Your task to perform on an android device: Open accessibility settings Image 0: 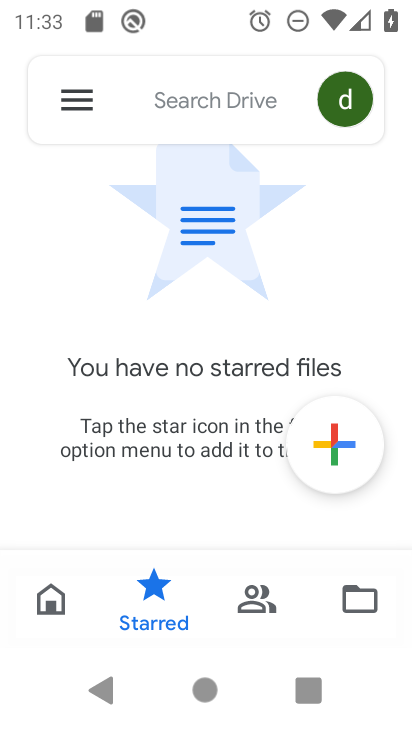
Step 0: press home button
Your task to perform on an android device: Open accessibility settings Image 1: 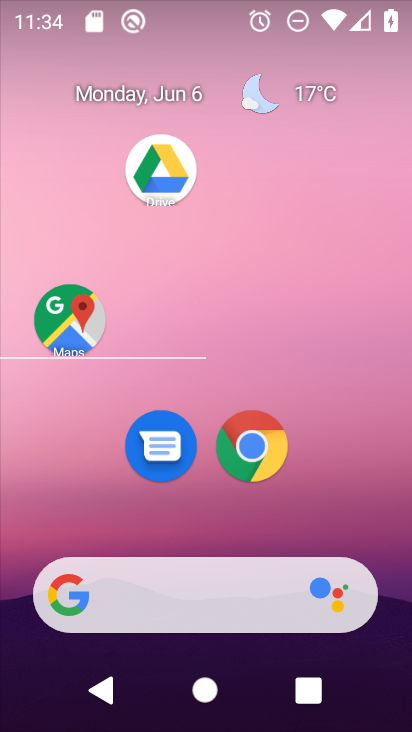
Step 1: drag from (304, 555) to (188, 2)
Your task to perform on an android device: Open accessibility settings Image 2: 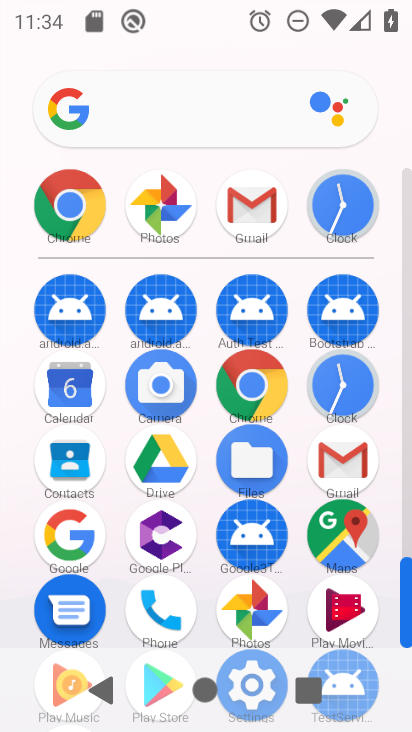
Step 2: drag from (205, 559) to (296, 115)
Your task to perform on an android device: Open accessibility settings Image 3: 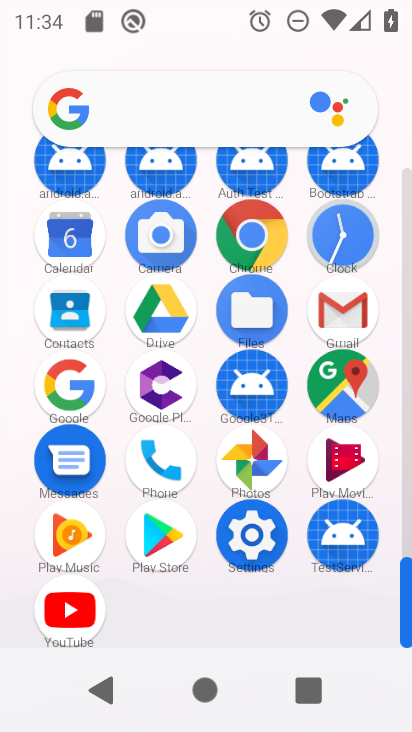
Step 3: click (258, 524)
Your task to perform on an android device: Open accessibility settings Image 4: 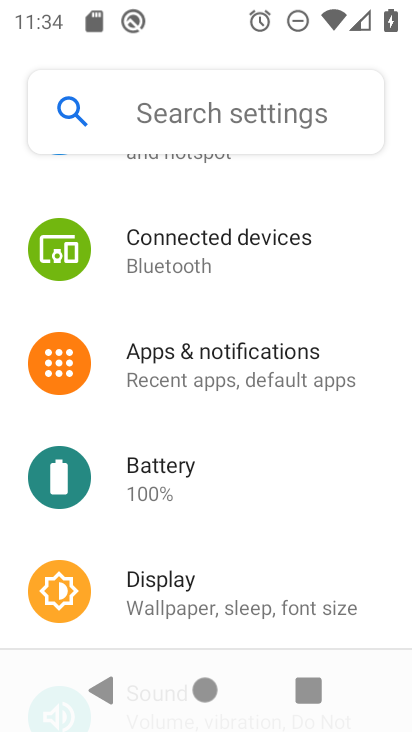
Step 4: drag from (258, 524) to (213, 98)
Your task to perform on an android device: Open accessibility settings Image 5: 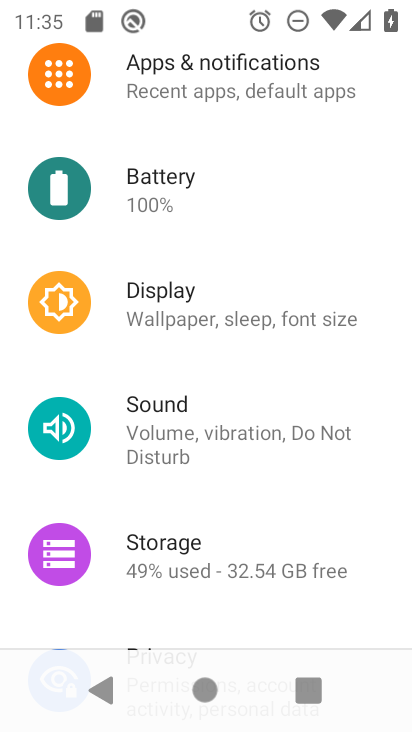
Step 5: drag from (197, 545) to (114, 117)
Your task to perform on an android device: Open accessibility settings Image 6: 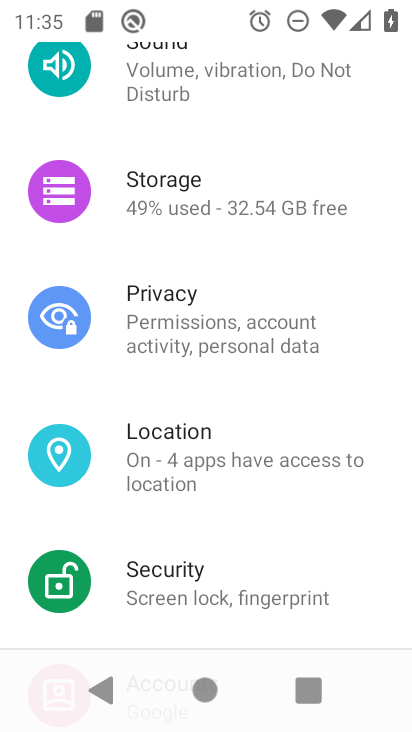
Step 6: drag from (174, 554) to (195, 102)
Your task to perform on an android device: Open accessibility settings Image 7: 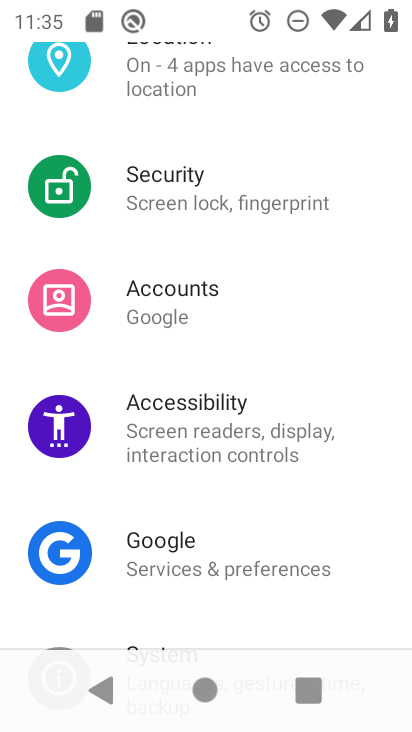
Step 7: click (169, 460)
Your task to perform on an android device: Open accessibility settings Image 8: 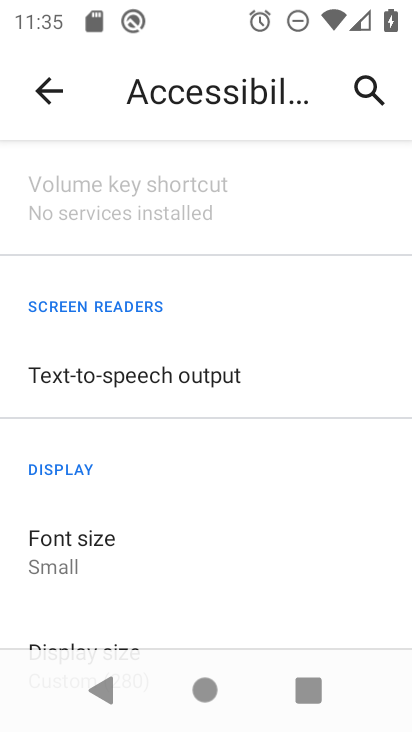
Step 8: task complete